Your task to perform on an android device: Clear all items from cart on bestbuy.com. Image 0: 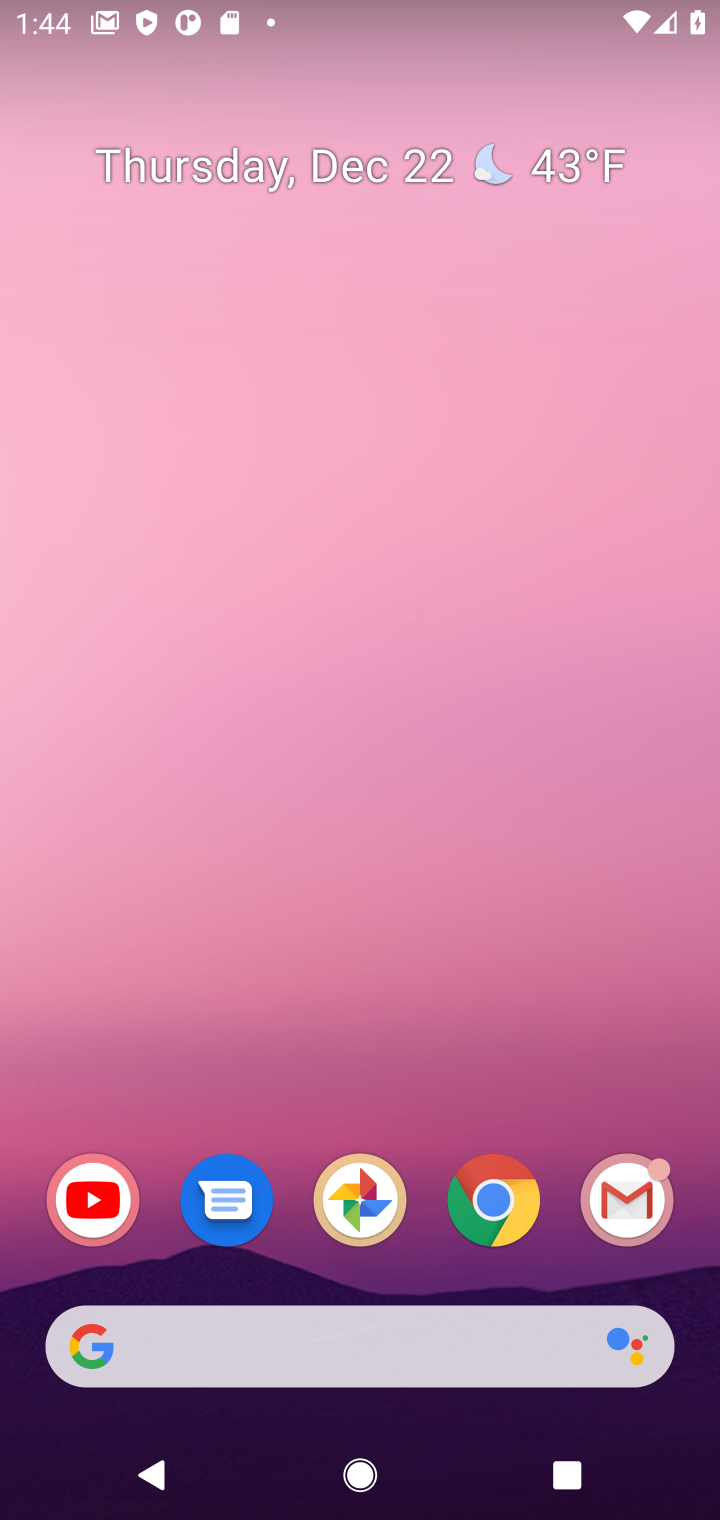
Step 0: click (485, 1194)
Your task to perform on an android device: Clear all items from cart on bestbuy.com. Image 1: 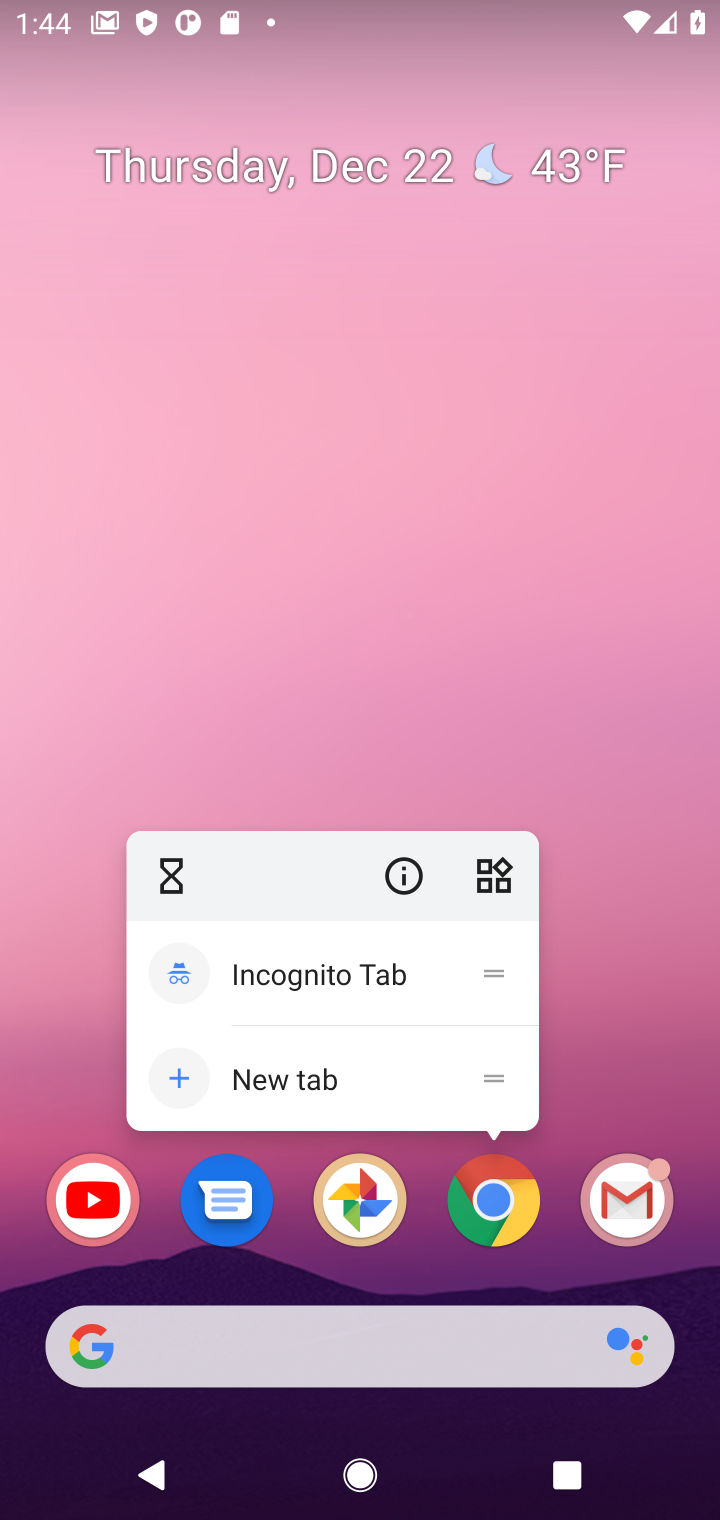
Step 1: click (485, 1194)
Your task to perform on an android device: Clear all items from cart on bestbuy.com. Image 2: 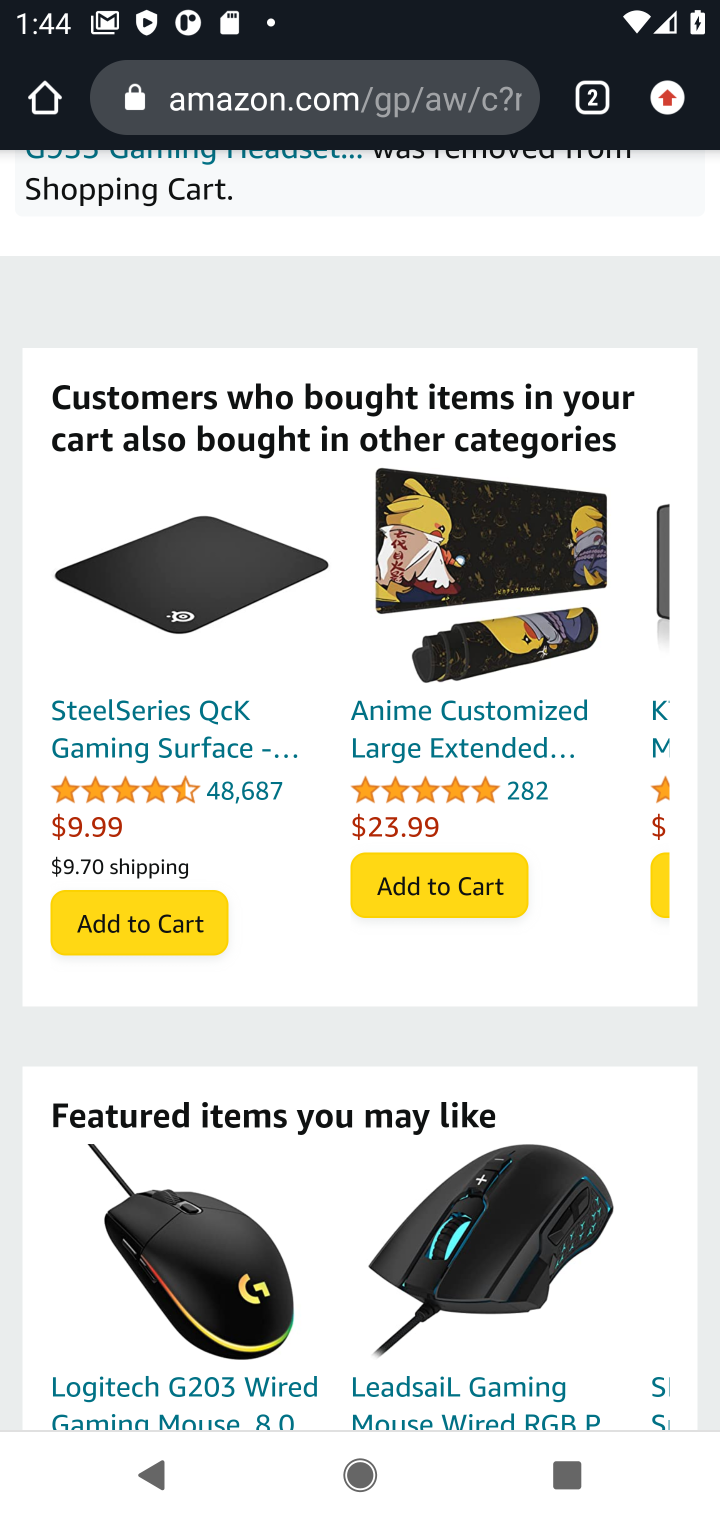
Step 2: click (314, 108)
Your task to perform on an android device: Clear all items from cart on bestbuy.com. Image 3: 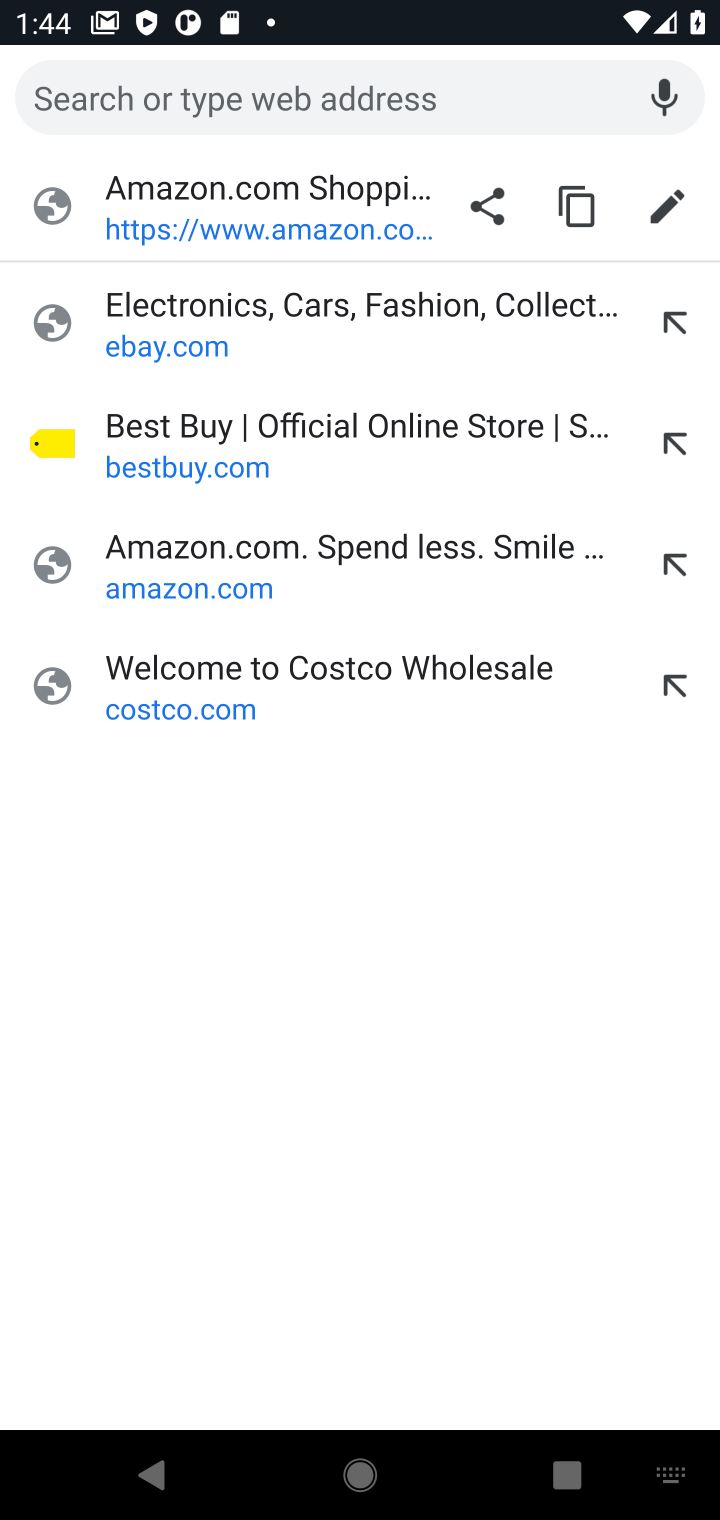
Step 3: click (188, 443)
Your task to perform on an android device: Clear all items from cart on bestbuy.com. Image 4: 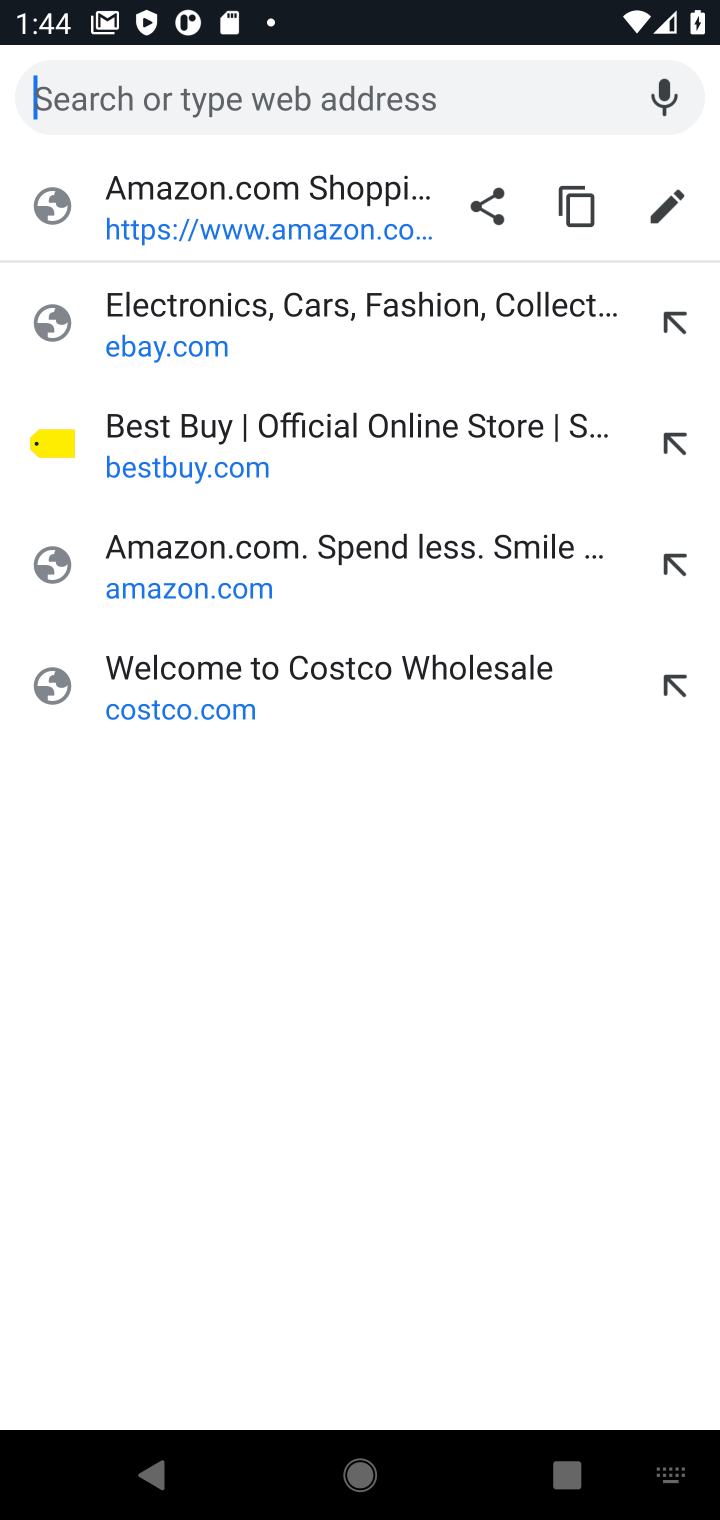
Step 4: click (189, 436)
Your task to perform on an android device: Clear all items from cart on bestbuy.com. Image 5: 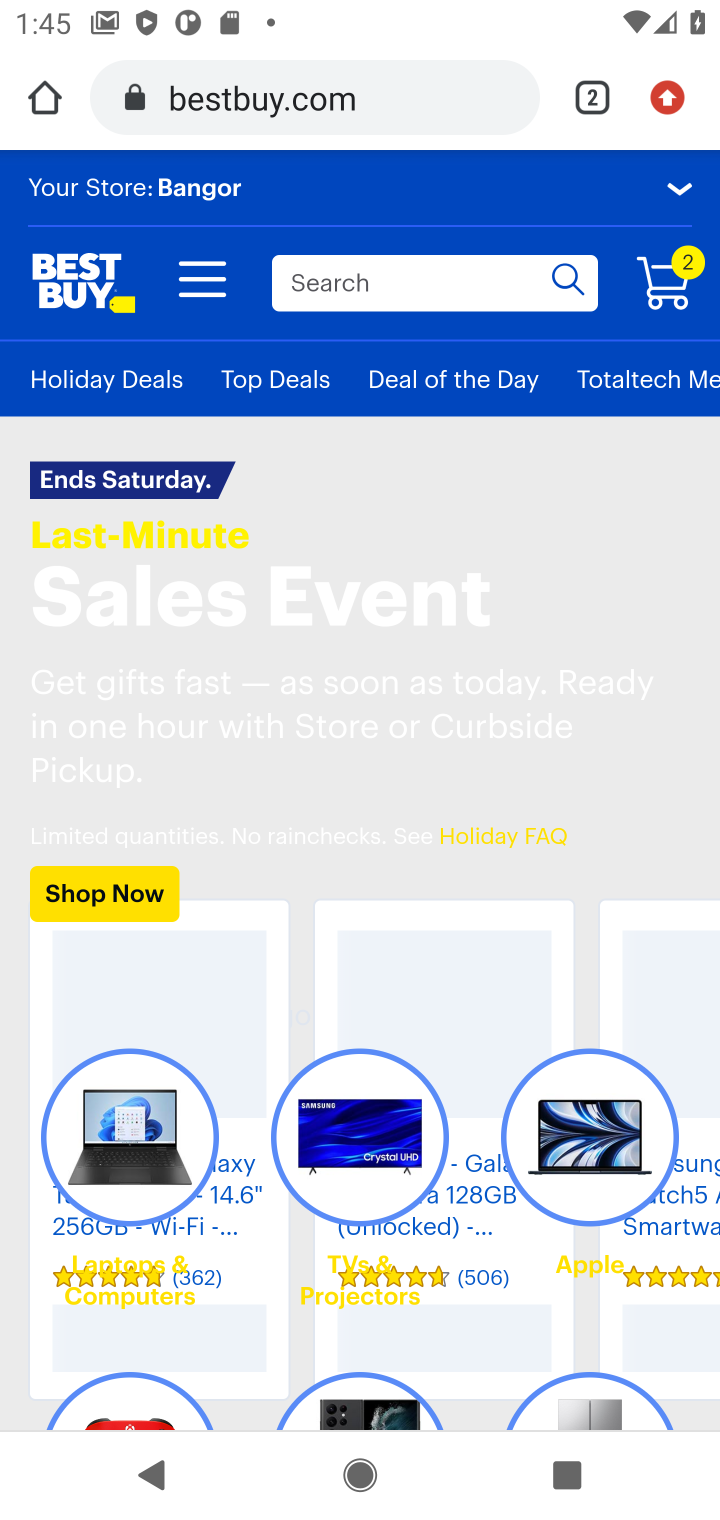
Step 5: click (656, 304)
Your task to perform on an android device: Clear all items from cart on bestbuy.com. Image 6: 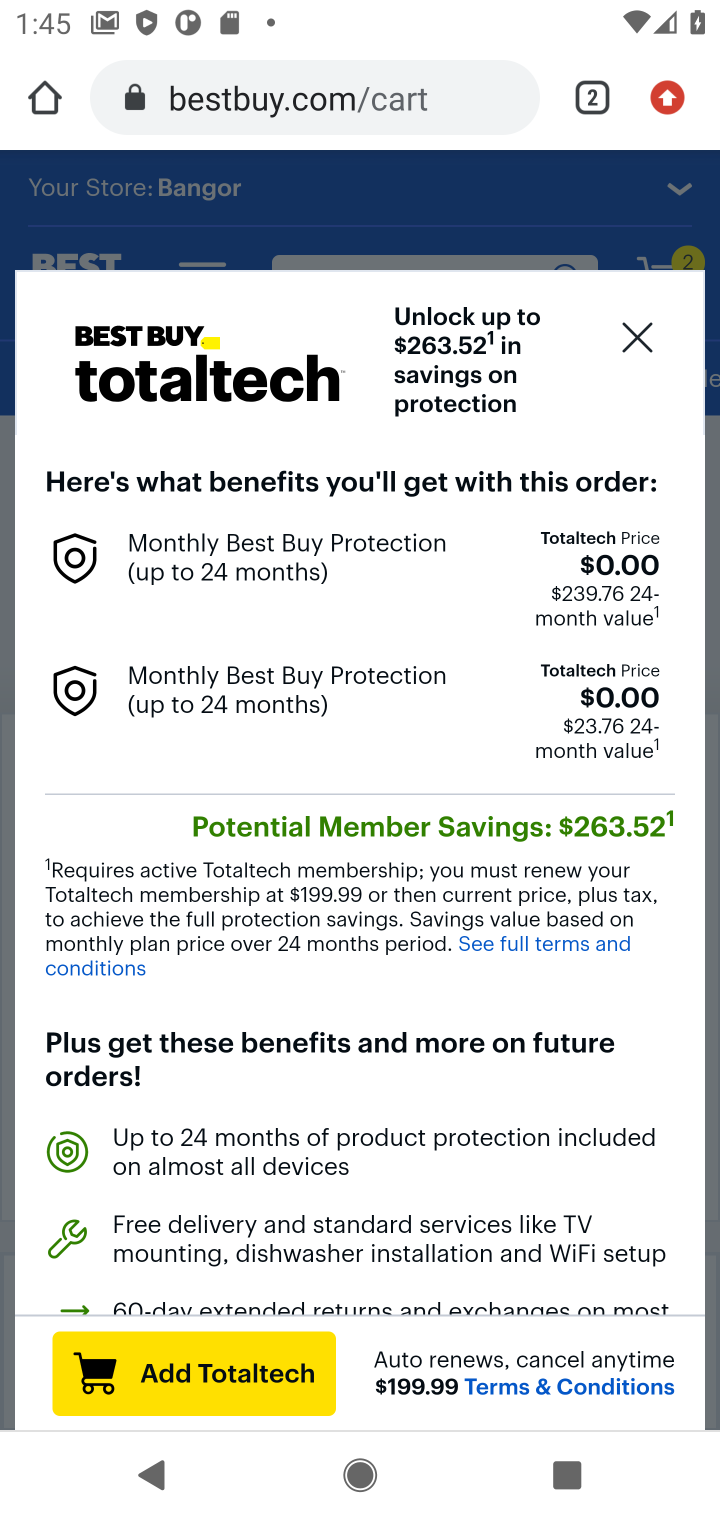
Step 6: click (642, 345)
Your task to perform on an android device: Clear all items from cart on bestbuy.com. Image 7: 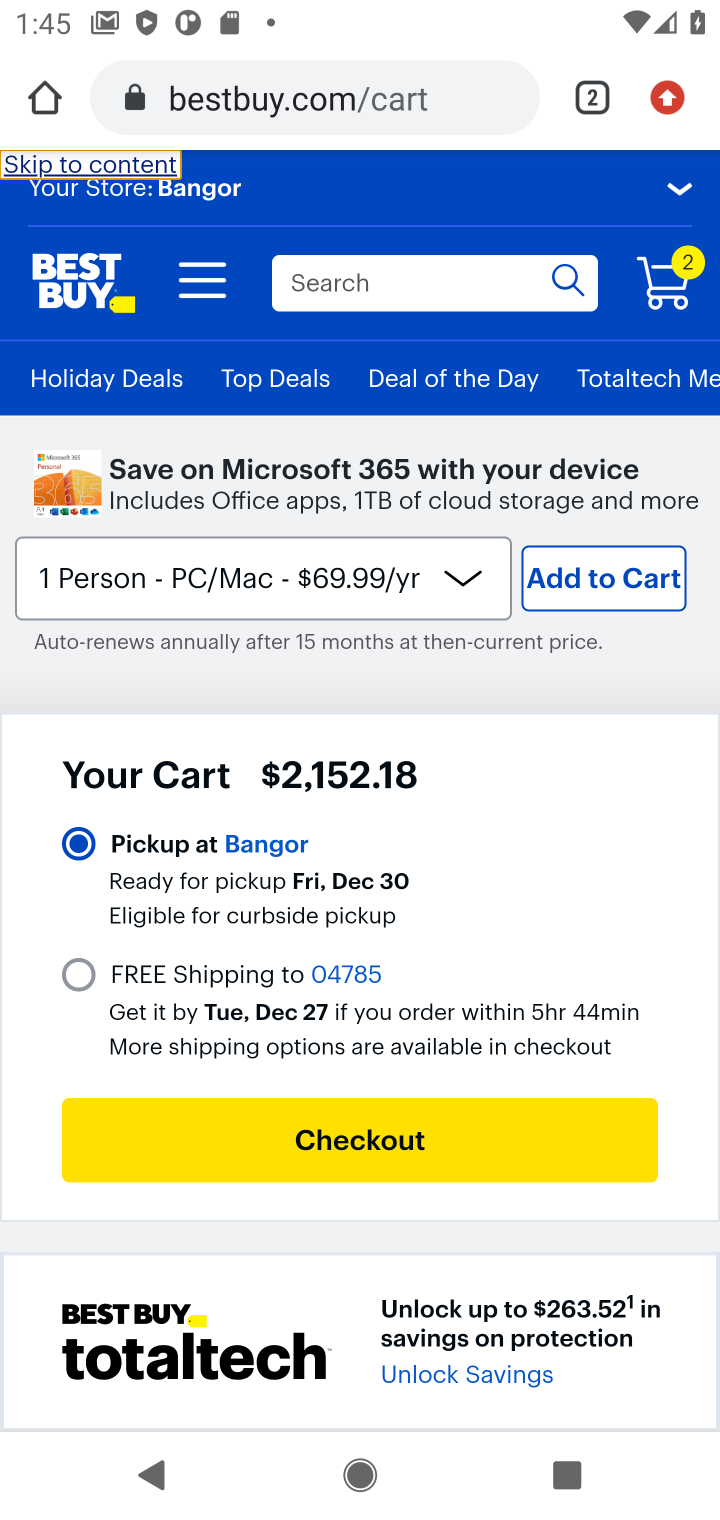
Step 7: drag from (449, 756) to (437, 129)
Your task to perform on an android device: Clear all items from cart on bestbuy.com. Image 8: 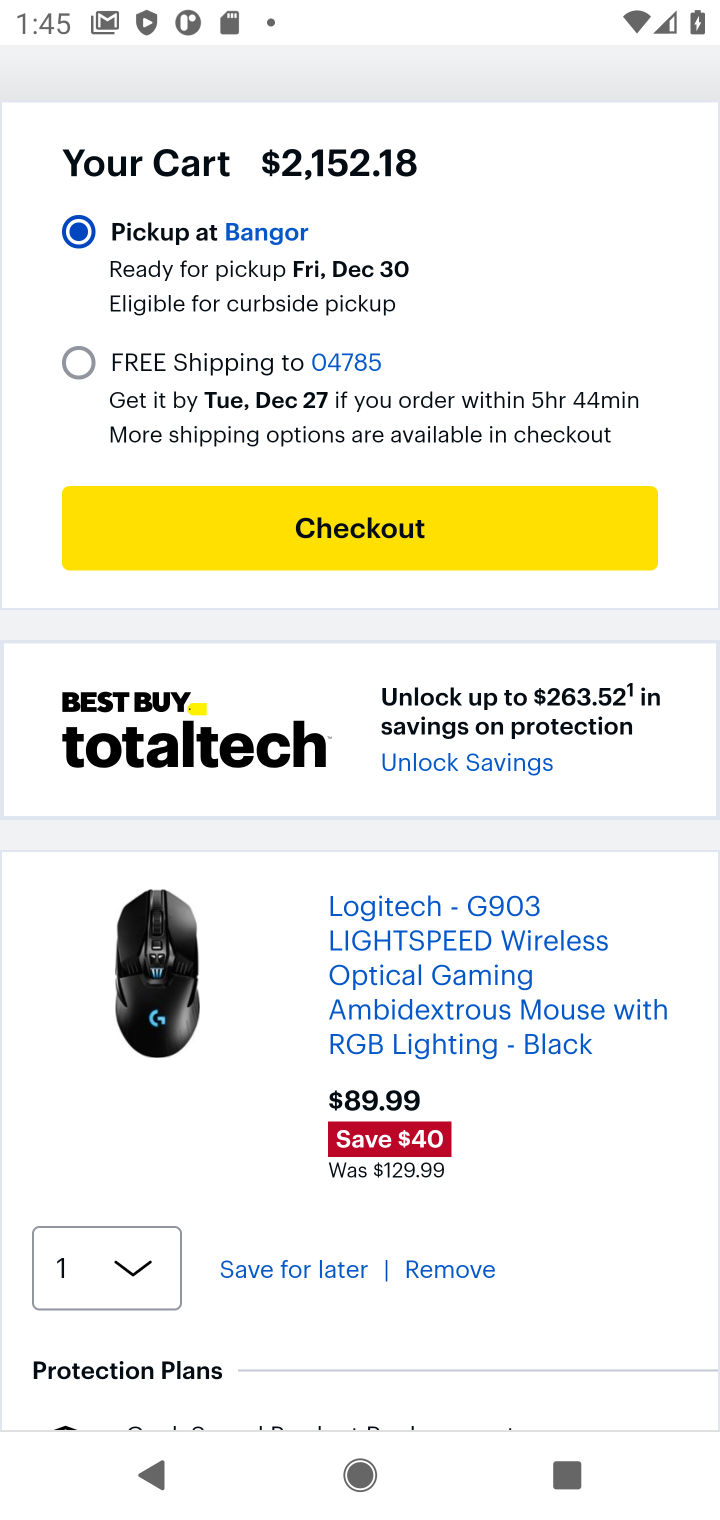
Step 8: click (451, 1261)
Your task to perform on an android device: Clear all items from cart on bestbuy.com. Image 9: 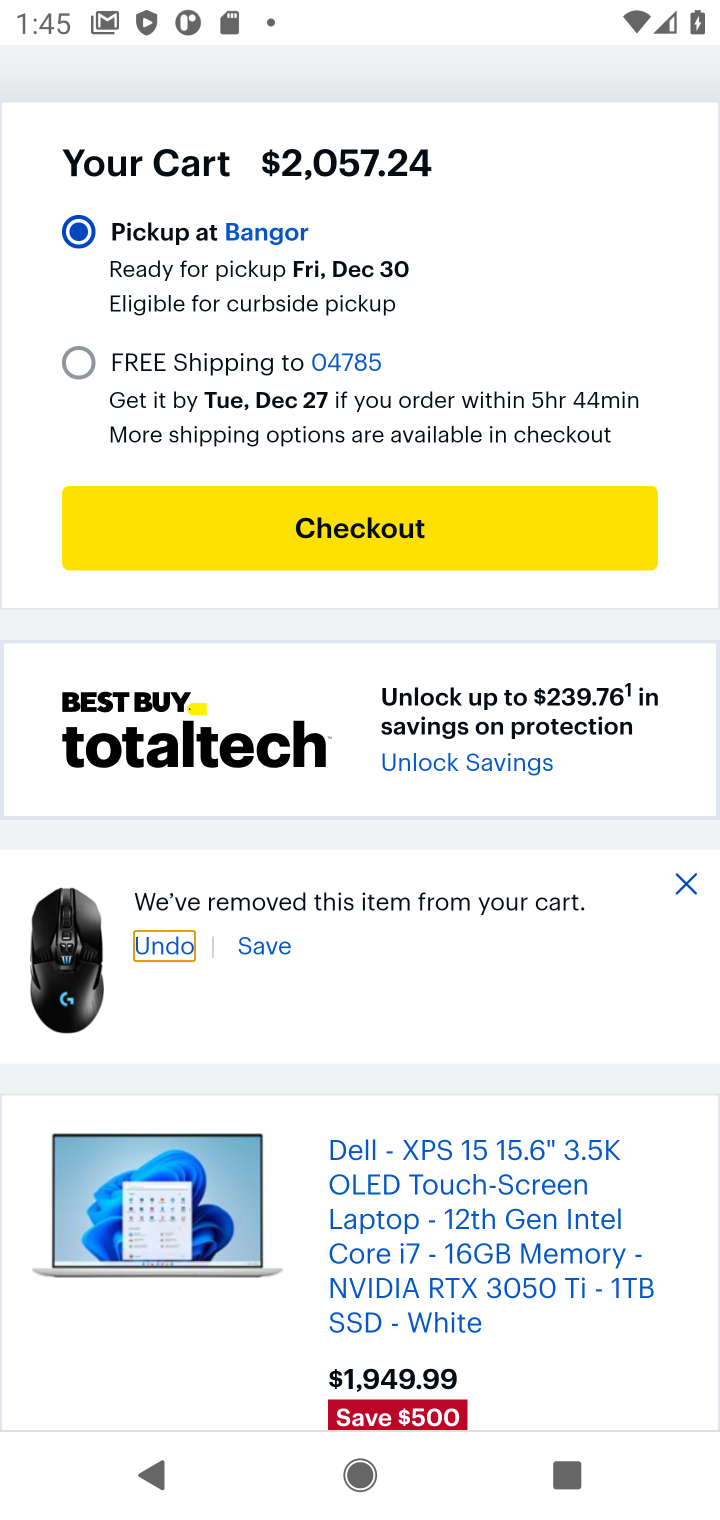
Step 9: drag from (519, 1062) to (551, 416)
Your task to perform on an android device: Clear all items from cart on bestbuy.com. Image 10: 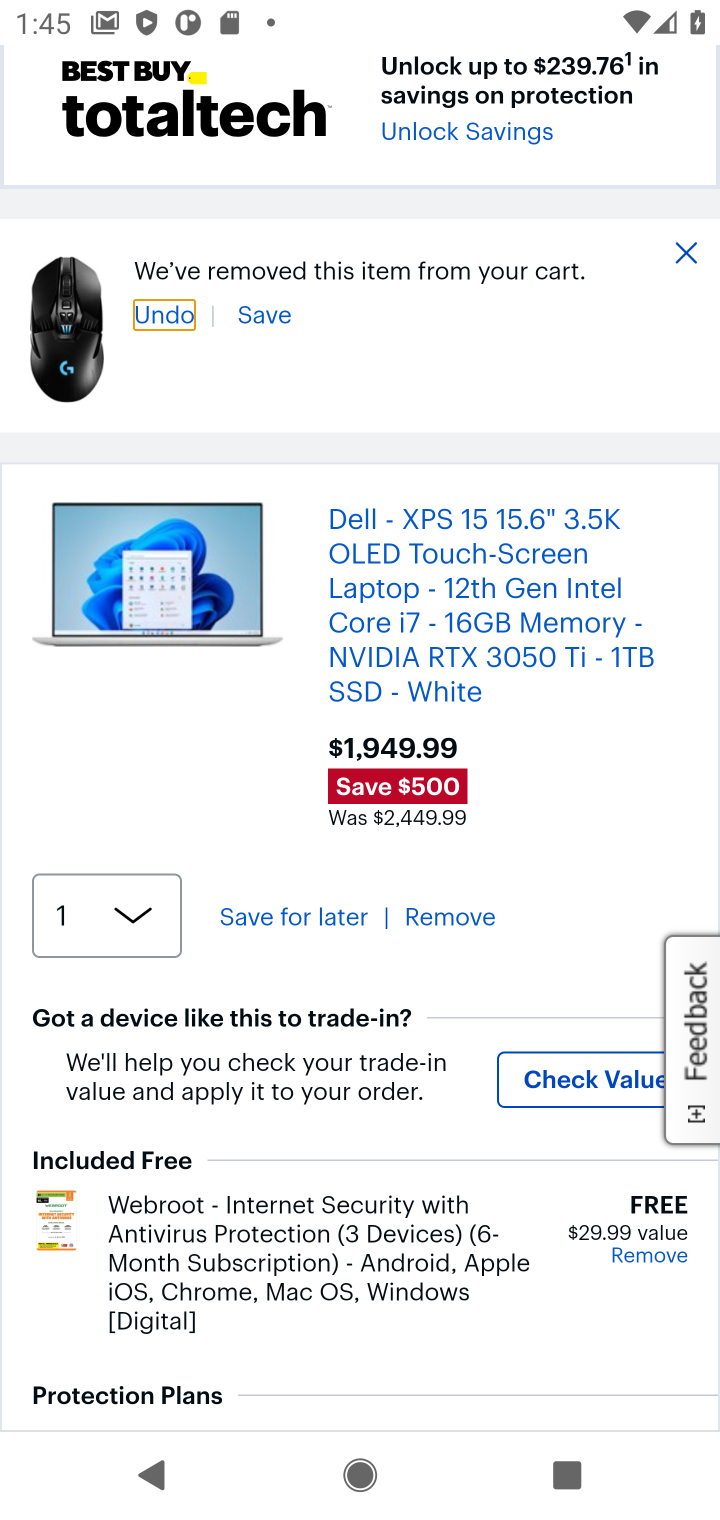
Step 10: click (443, 926)
Your task to perform on an android device: Clear all items from cart on bestbuy.com. Image 11: 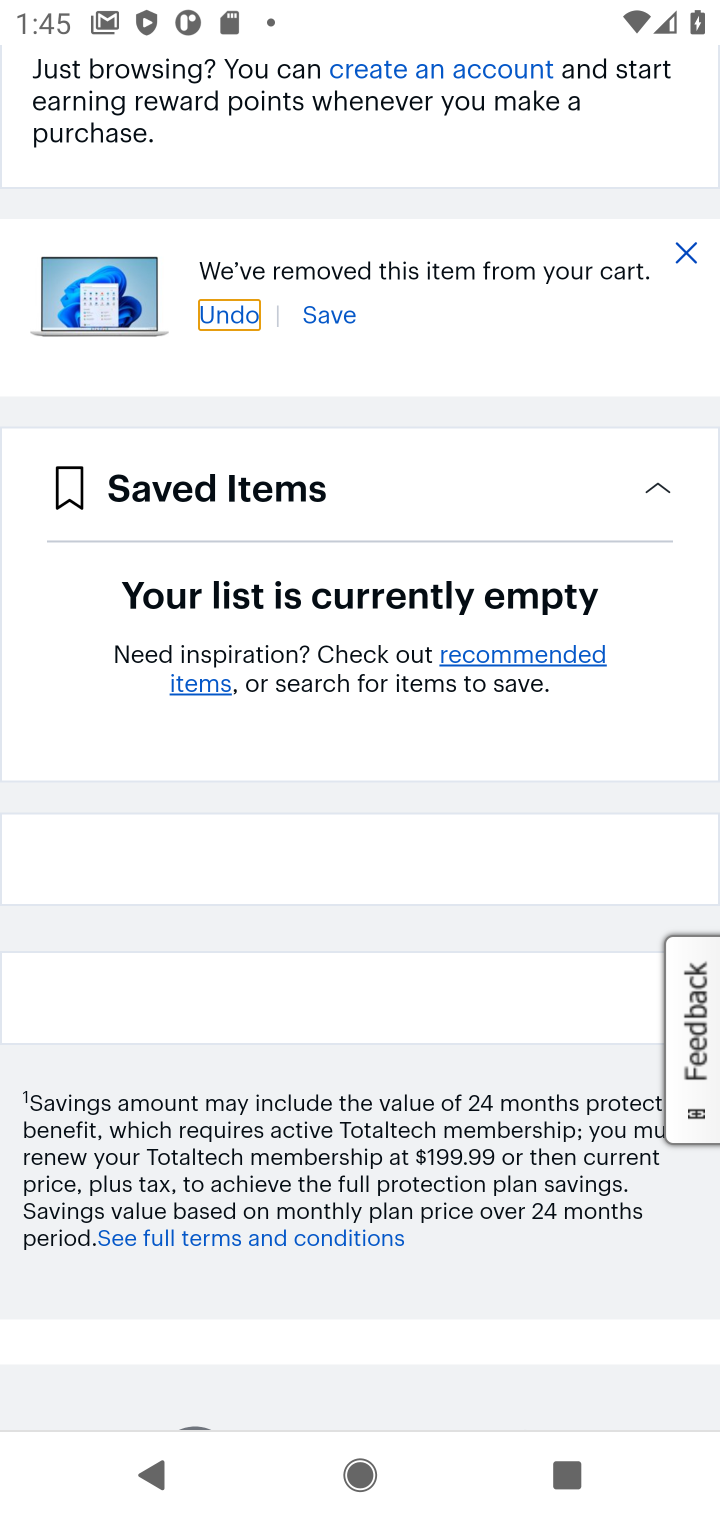
Step 11: task complete